Your task to perform on an android device: Find coffee shops on Maps Image 0: 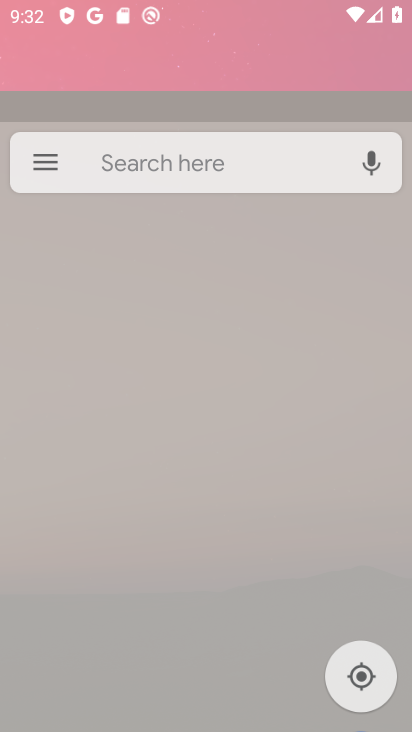
Step 0: click (236, 0)
Your task to perform on an android device: Find coffee shops on Maps Image 1: 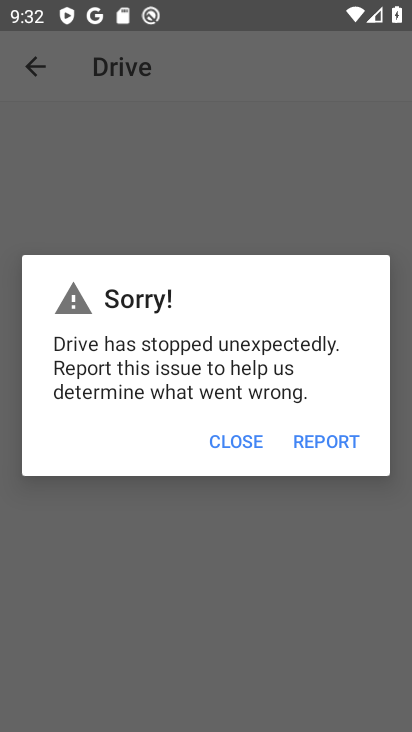
Step 1: press home button
Your task to perform on an android device: Find coffee shops on Maps Image 2: 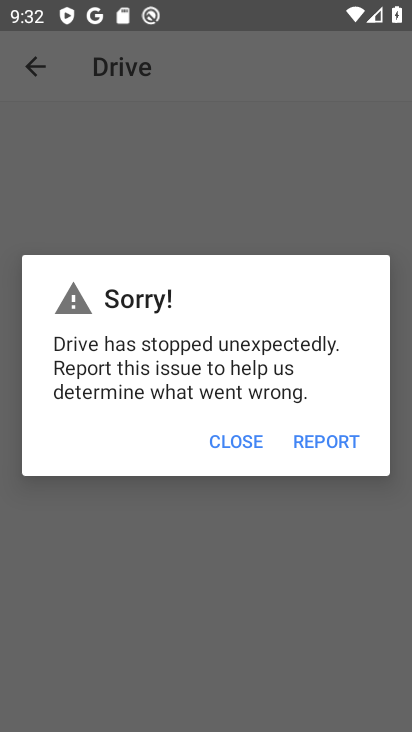
Step 2: press home button
Your task to perform on an android device: Find coffee shops on Maps Image 3: 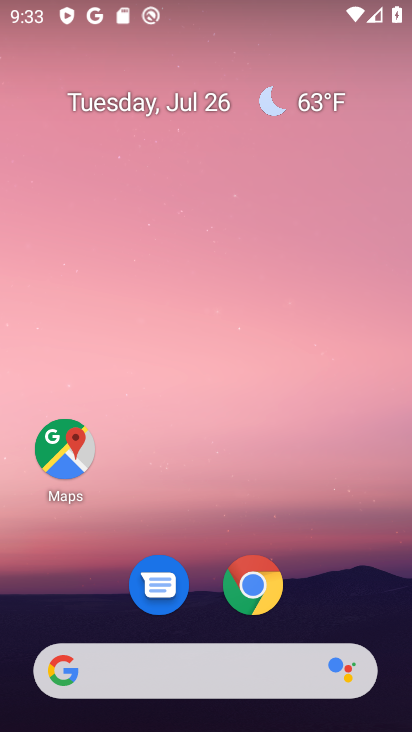
Step 3: click (64, 445)
Your task to perform on an android device: Find coffee shops on Maps Image 4: 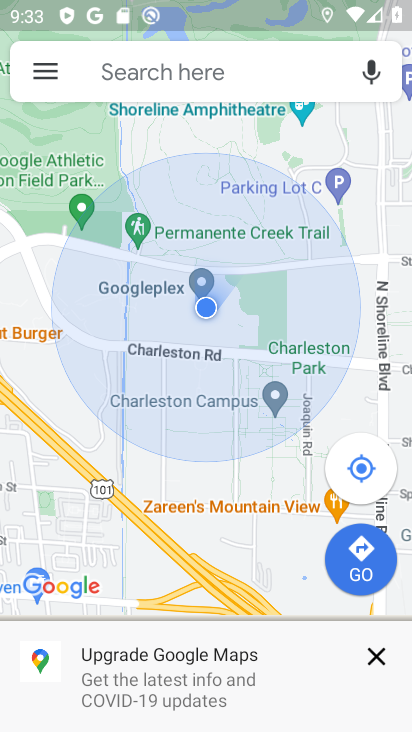
Step 4: click (223, 68)
Your task to perform on an android device: Find coffee shops on Maps Image 5: 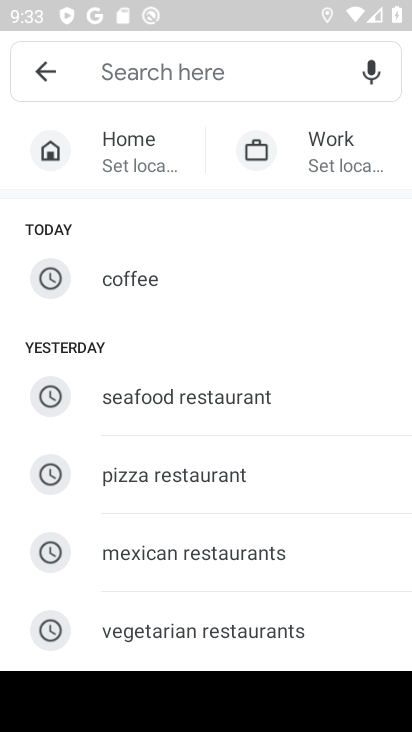
Step 5: click (140, 273)
Your task to perform on an android device: Find coffee shops on Maps Image 6: 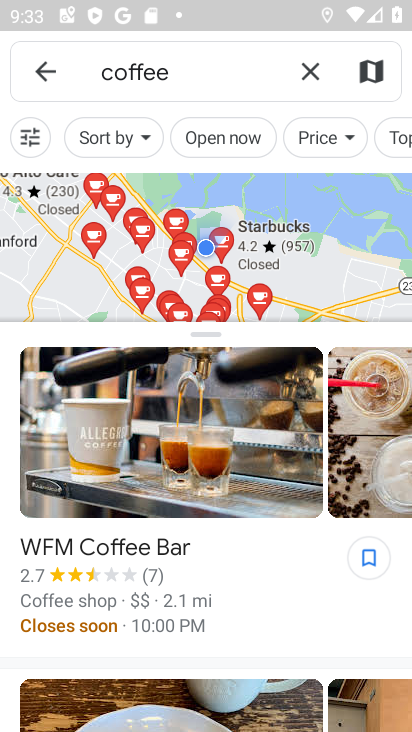
Step 6: task complete